Your task to perform on an android device: open a bookmark in the chrome app Image 0: 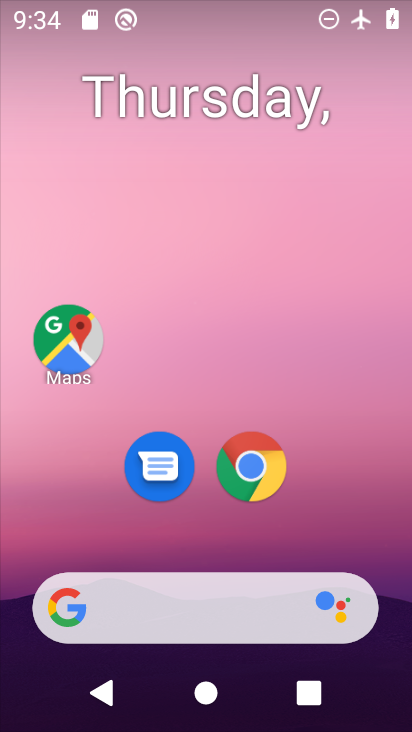
Step 0: drag from (313, 581) to (408, 536)
Your task to perform on an android device: open a bookmark in the chrome app Image 1: 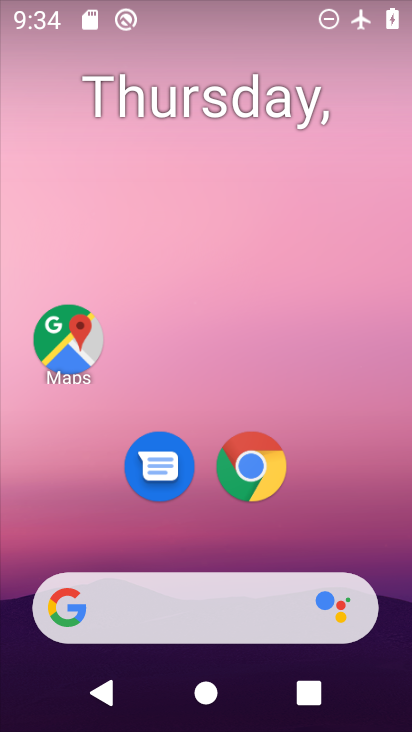
Step 1: drag from (314, 530) to (403, 130)
Your task to perform on an android device: open a bookmark in the chrome app Image 2: 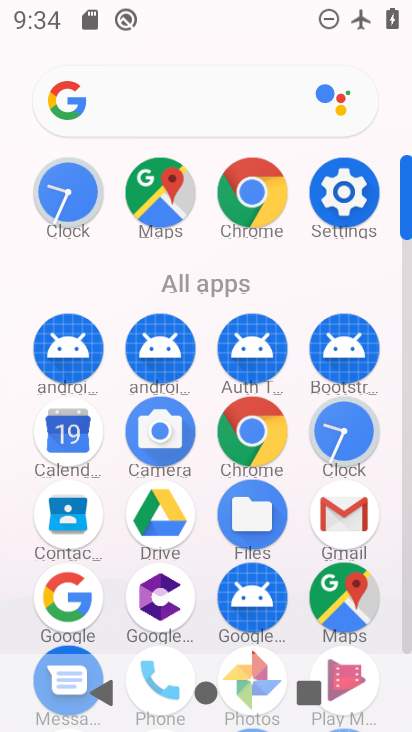
Step 2: click (270, 450)
Your task to perform on an android device: open a bookmark in the chrome app Image 3: 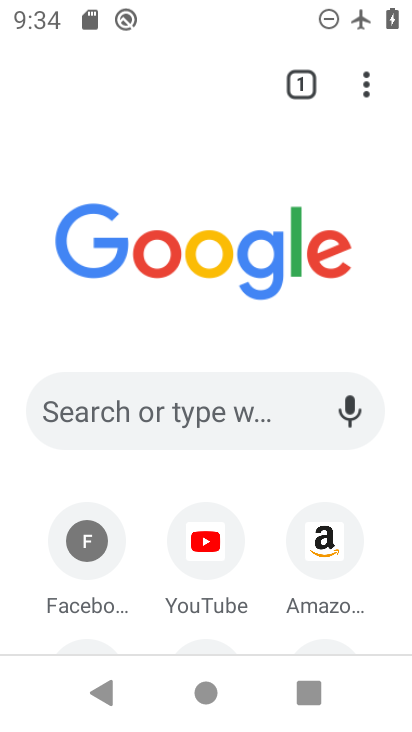
Step 3: click (373, 82)
Your task to perform on an android device: open a bookmark in the chrome app Image 4: 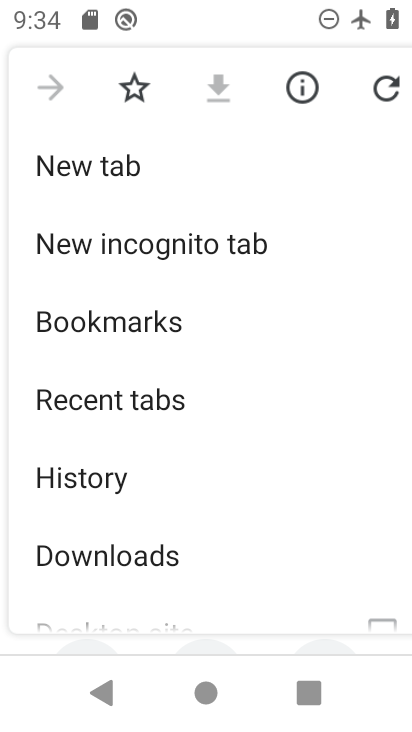
Step 4: click (218, 339)
Your task to perform on an android device: open a bookmark in the chrome app Image 5: 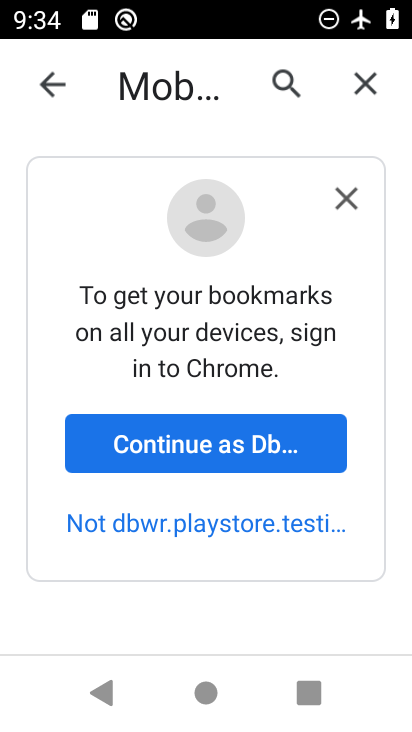
Step 5: task complete